Your task to perform on an android device: Is it going to rain this weekend? Image 0: 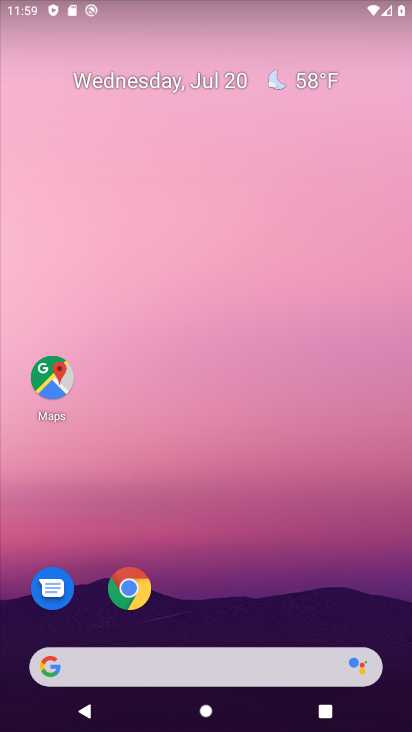
Step 0: click (201, 663)
Your task to perform on an android device: Is it going to rain this weekend? Image 1: 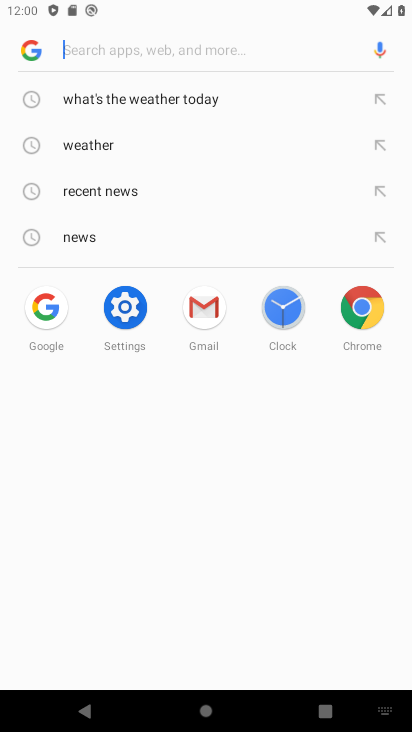
Step 1: type "is it going to rain this weekend"
Your task to perform on an android device: Is it going to rain this weekend? Image 2: 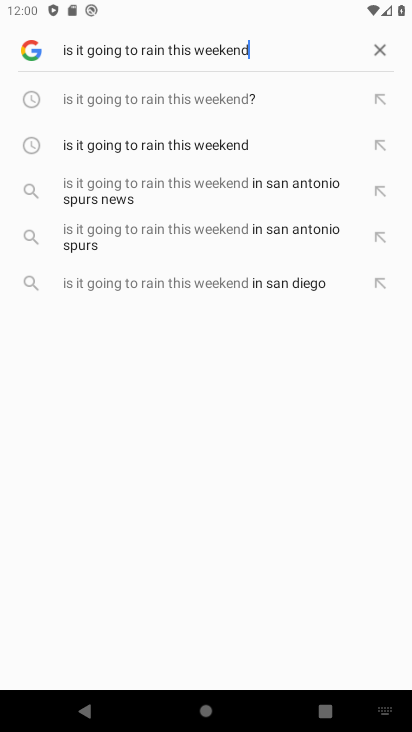
Step 2: click (224, 90)
Your task to perform on an android device: Is it going to rain this weekend? Image 3: 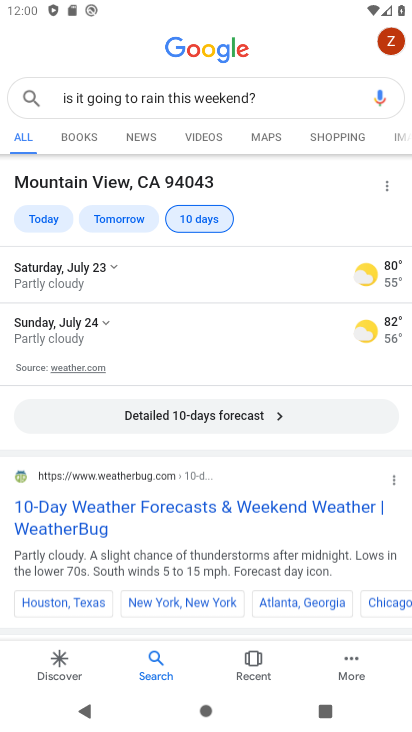
Step 3: task complete